Your task to perform on an android device: read, delete, or share a saved page in the chrome app Image 0: 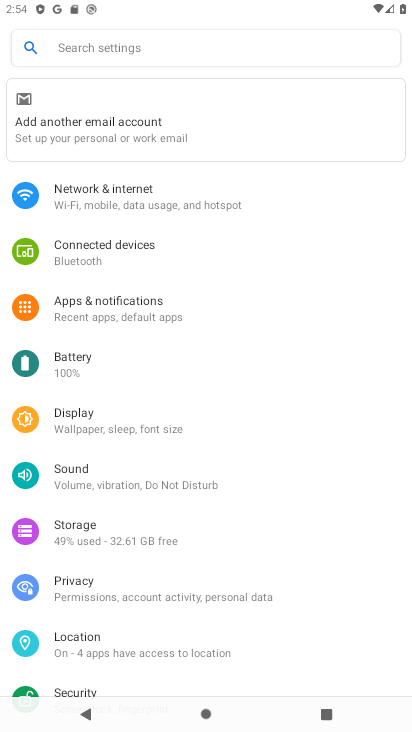
Step 0: press home button
Your task to perform on an android device: read, delete, or share a saved page in the chrome app Image 1: 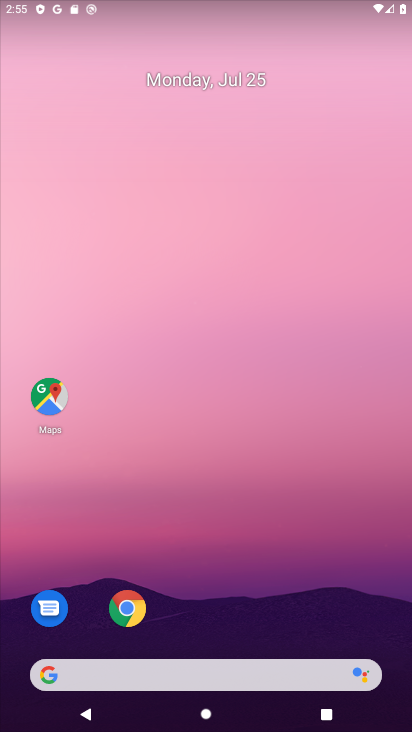
Step 1: click (117, 608)
Your task to perform on an android device: read, delete, or share a saved page in the chrome app Image 2: 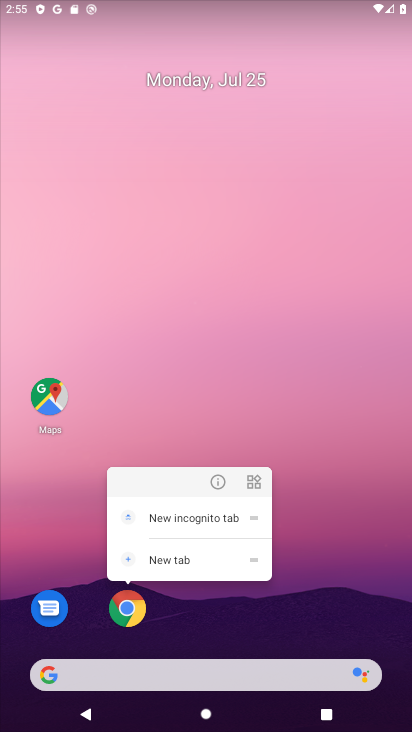
Step 2: click (127, 605)
Your task to perform on an android device: read, delete, or share a saved page in the chrome app Image 3: 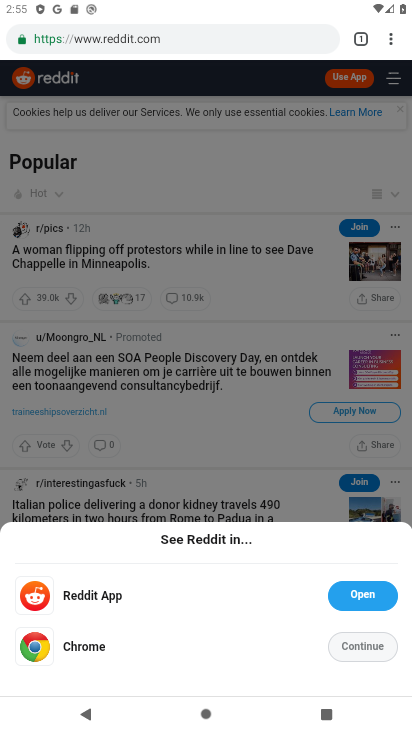
Step 3: task complete